Your task to perform on an android device: Go to notification settings Image 0: 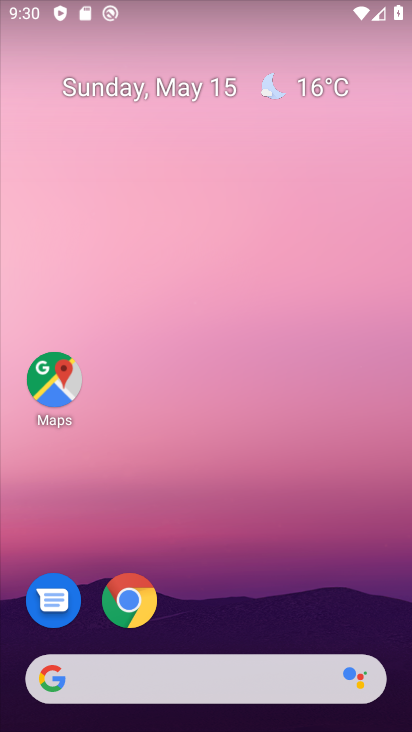
Step 0: drag from (200, 610) to (169, 138)
Your task to perform on an android device: Go to notification settings Image 1: 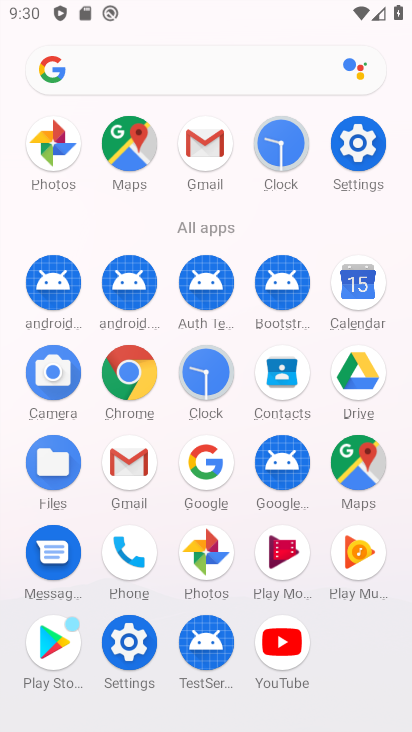
Step 1: click (361, 153)
Your task to perform on an android device: Go to notification settings Image 2: 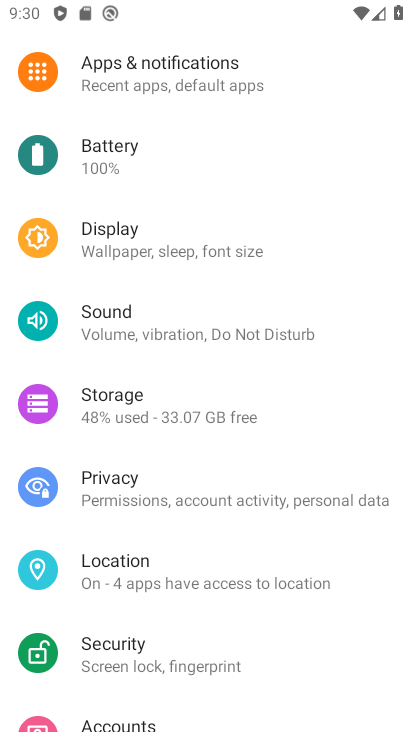
Step 2: click (180, 69)
Your task to perform on an android device: Go to notification settings Image 3: 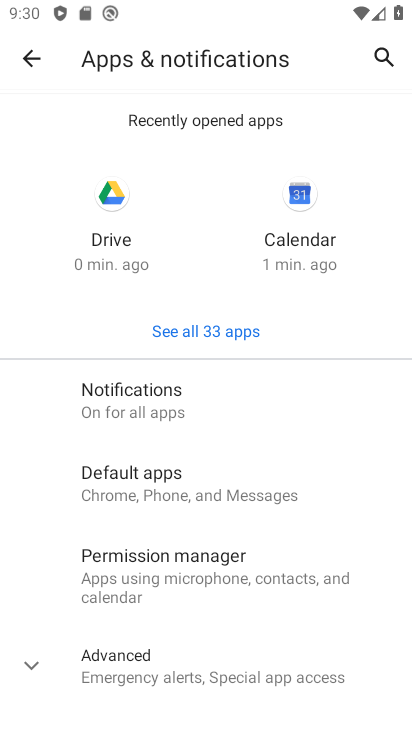
Step 3: drag from (266, 564) to (254, 257)
Your task to perform on an android device: Go to notification settings Image 4: 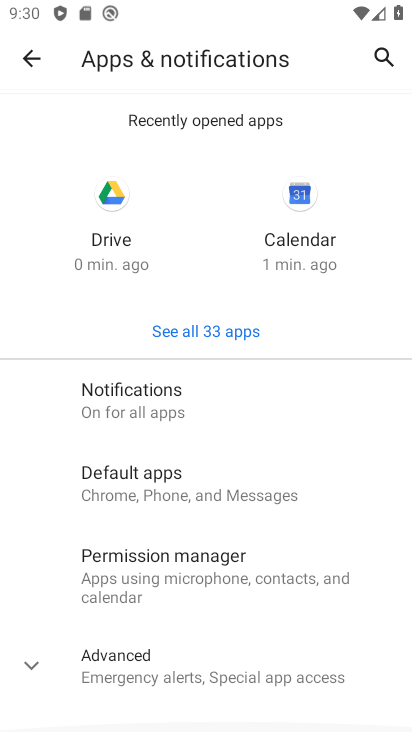
Step 4: click (129, 682)
Your task to perform on an android device: Go to notification settings Image 5: 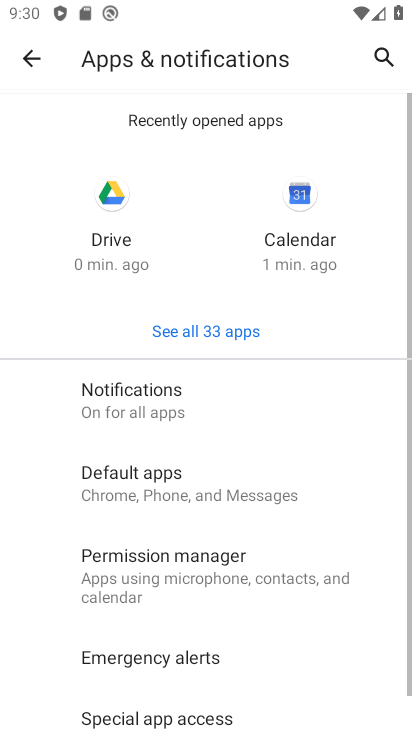
Step 5: task complete